Your task to perform on an android device: Go to Google Image 0: 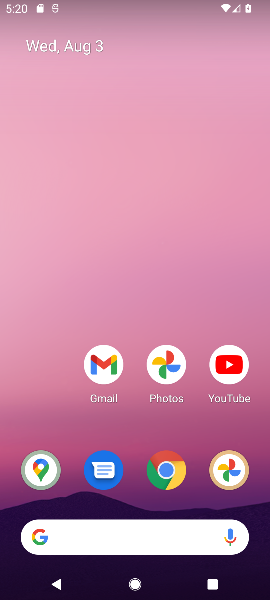
Step 0: drag from (192, 441) to (141, 235)
Your task to perform on an android device: Go to Google Image 1: 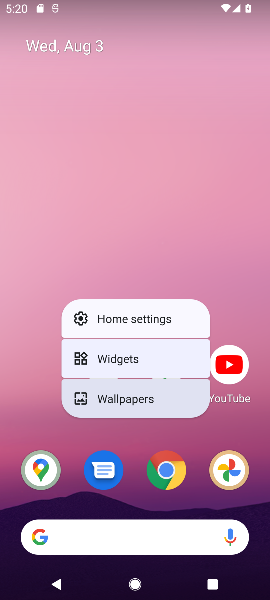
Step 1: click (123, 242)
Your task to perform on an android device: Go to Google Image 2: 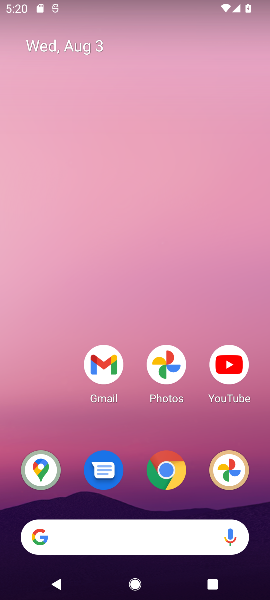
Step 2: drag from (146, 423) to (143, 48)
Your task to perform on an android device: Go to Google Image 3: 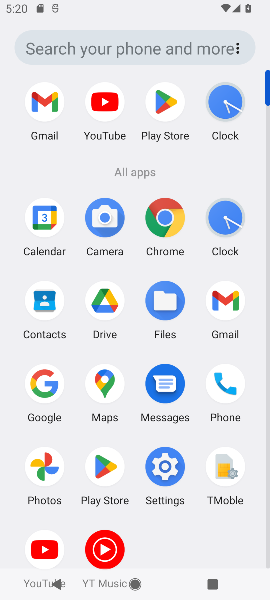
Step 3: click (43, 393)
Your task to perform on an android device: Go to Google Image 4: 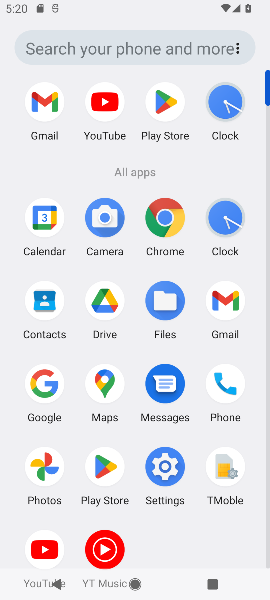
Step 4: click (50, 382)
Your task to perform on an android device: Go to Google Image 5: 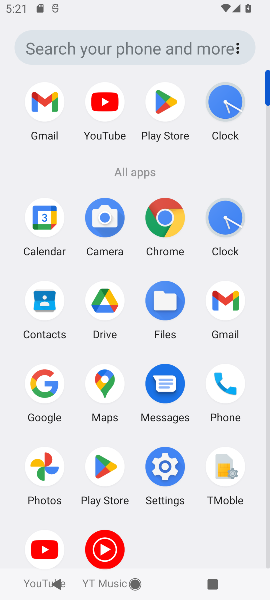
Step 5: click (50, 381)
Your task to perform on an android device: Go to Google Image 6: 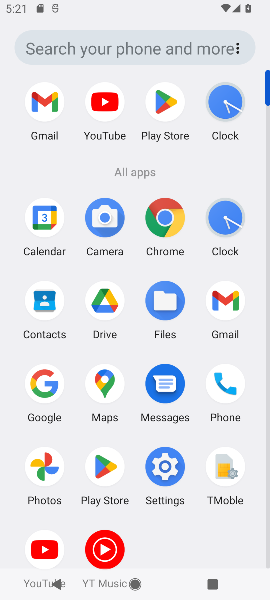
Step 6: click (40, 390)
Your task to perform on an android device: Go to Google Image 7: 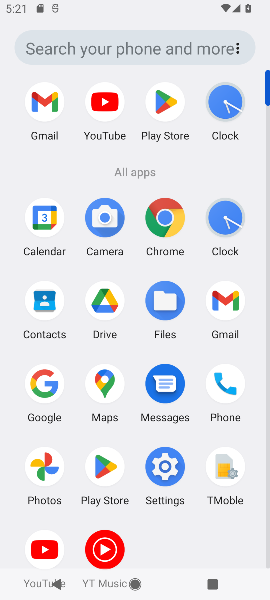
Step 7: click (40, 390)
Your task to perform on an android device: Go to Google Image 8: 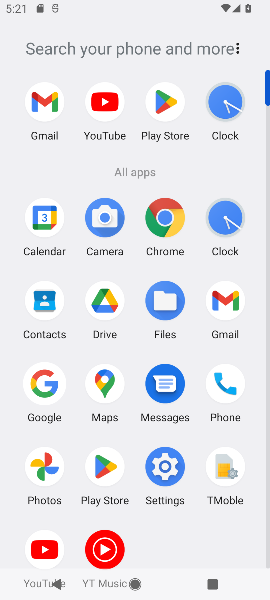
Step 8: task complete